Your task to perform on an android device: turn on priority inbox in the gmail app Image 0: 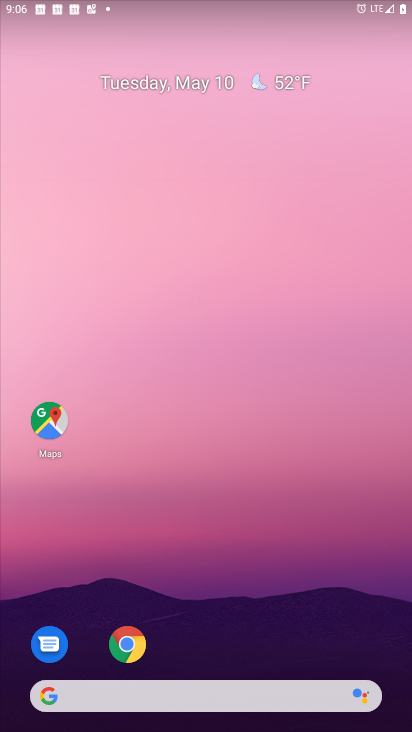
Step 0: drag from (382, 659) to (293, 66)
Your task to perform on an android device: turn on priority inbox in the gmail app Image 1: 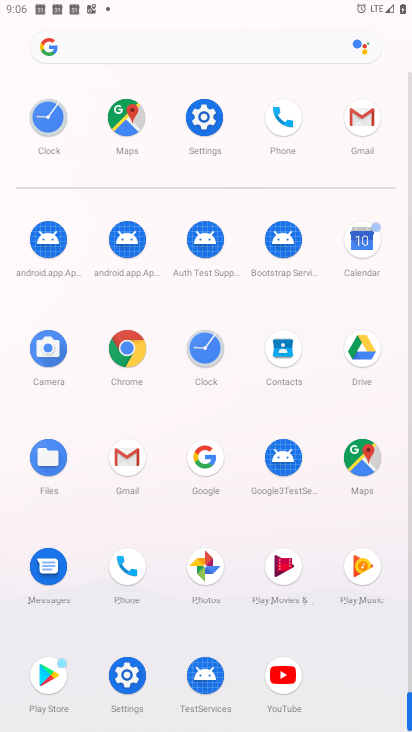
Step 1: click (121, 453)
Your task to perform on an android device: turn on priority inbox in the gmail app Image 2: 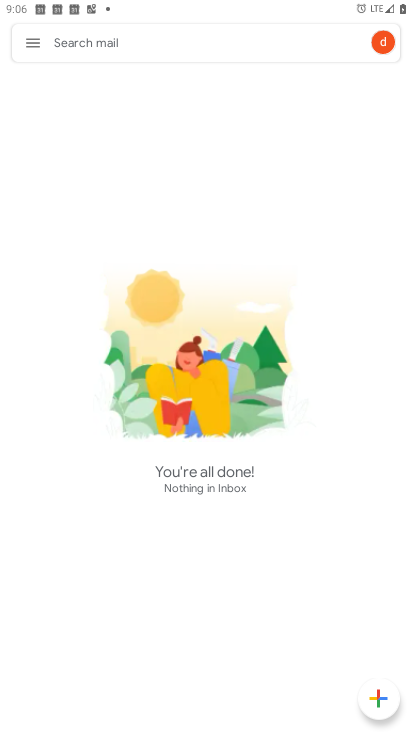
Step 2: click (31, 40)
Your task to perform on an android device: turn on priority inbox in the gmail app Image 3: 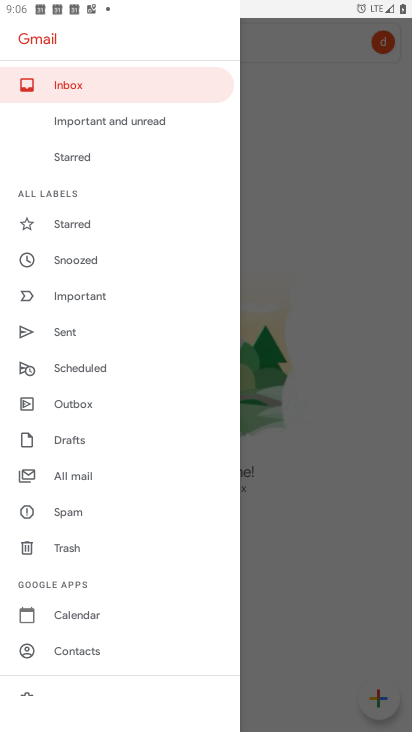
Step 3: drag from (134, 609) to (184, 179)
Your task to perform on an android device: turn on priority inbox in the gmail app Image 4: 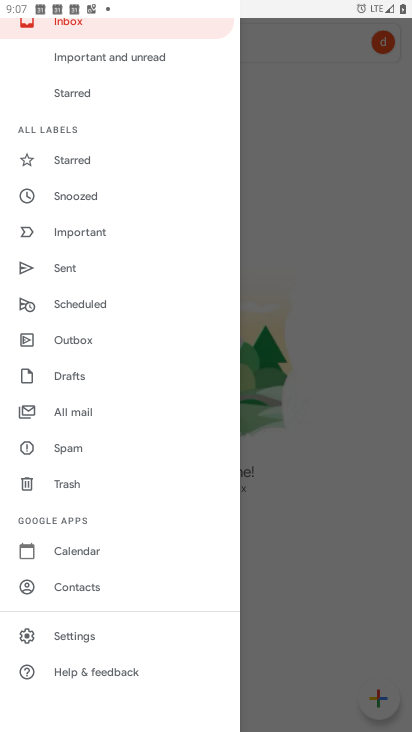
Step 4: click (84, 633)
Your task to perform on an android device: turn on priority inbox in the gmail app Image 5: 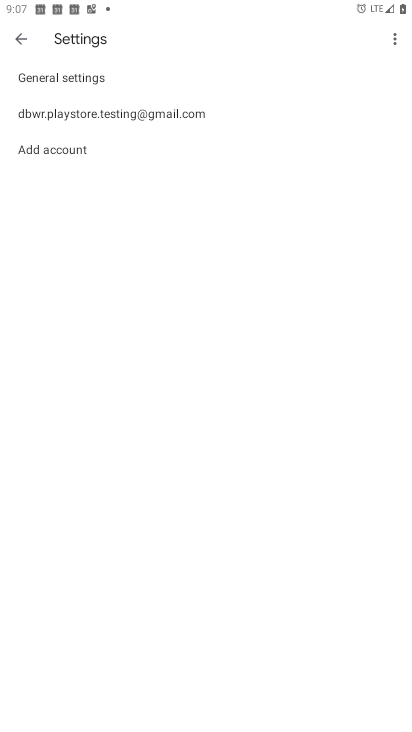
Step 5: click (109, 108)
Your task to perform on an android device: turn on priority inbox in the gmail app Image 6: 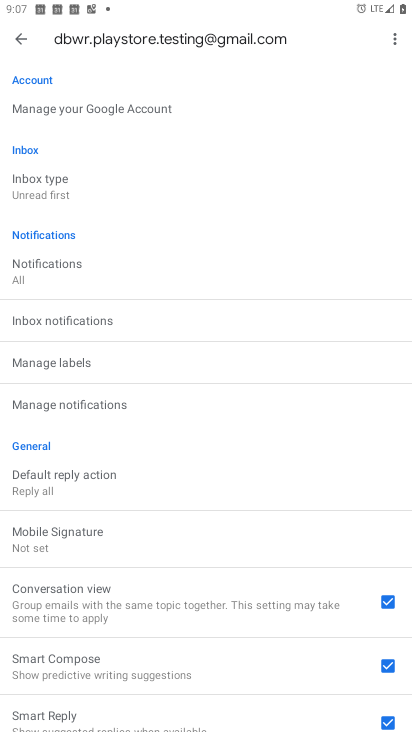
Step 6: click (42, 185)
Your task to perform on an android device: turn on priority inbox in the gmail app Image 7: 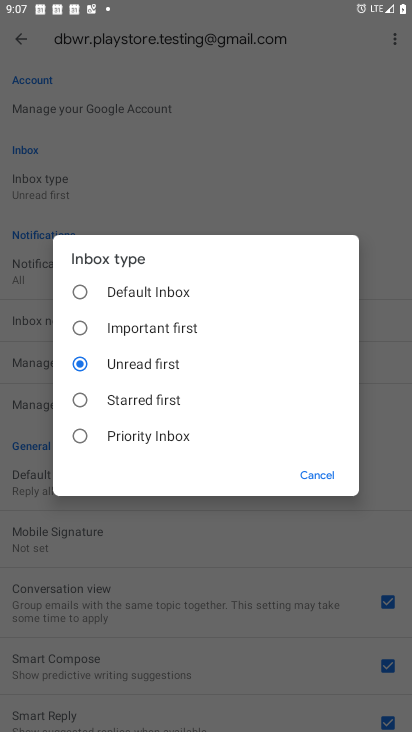
Step 7: click (79, 441)
Your task to perform on an android device: turn on priority inbox in the gmail app Image 8: 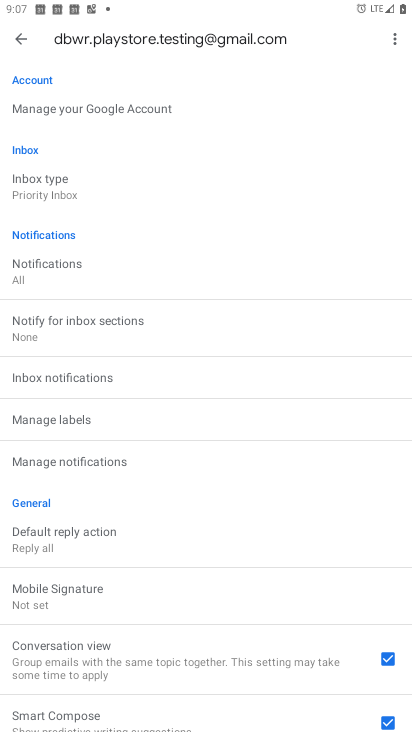
Step 8: task complete